Your task to perform on an android device: turn off data saver in the chrome app Image 0: 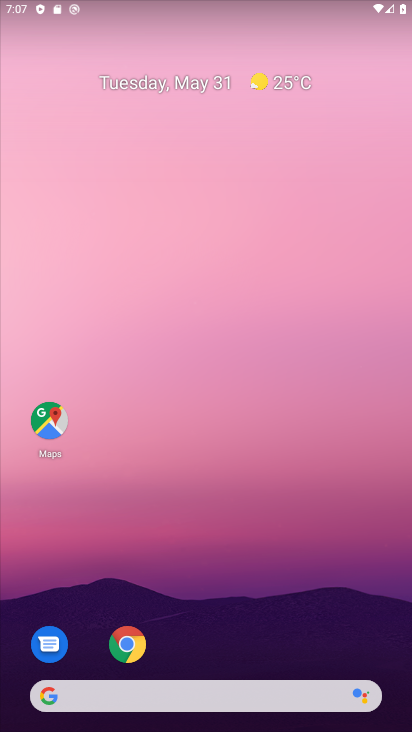
Step 0: drag from (254, 713) to (316, 157)
Your task to perform on an android device: turn off data saver in the chrome app Image 1: 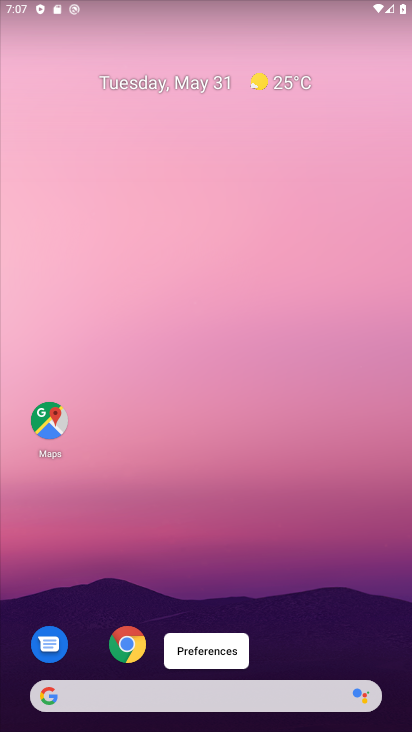
Step 1: click (136, 641)
Your task to perform on an android device: turn off data saver in the chrome app Image 2: 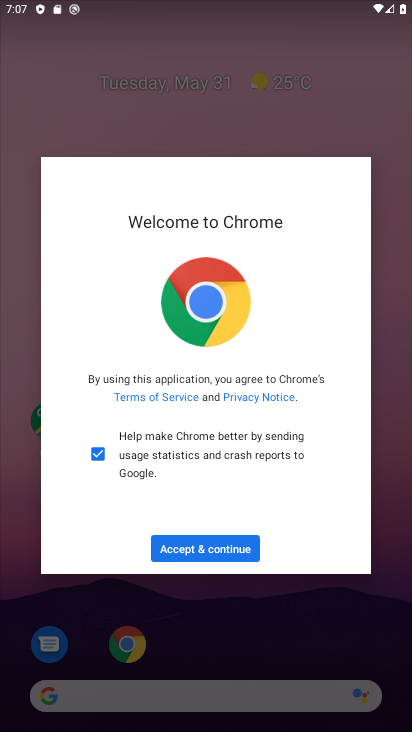
Step 2: click (204, 550)
Your task to perform on an android device: turn off data saver in the chrome app Image 3: 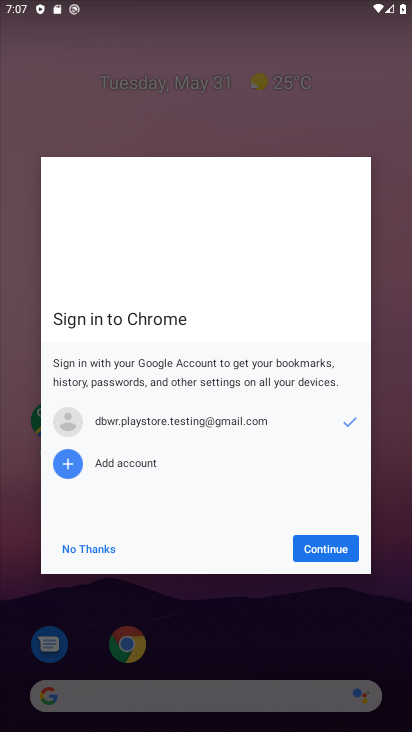
Step 3: click (315, 547)
Your task to perform on an android device: turn off data saver in the chrome app Image 4: 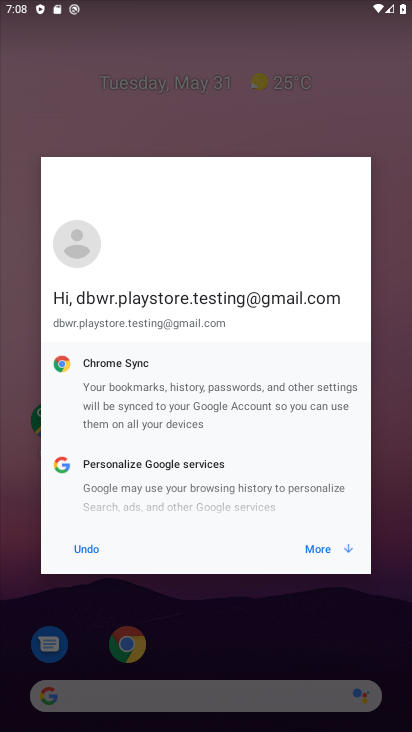
Step 4: click (338, 549)
Your task to perform on an android device: turn off data saver in the chrome app Image 5: 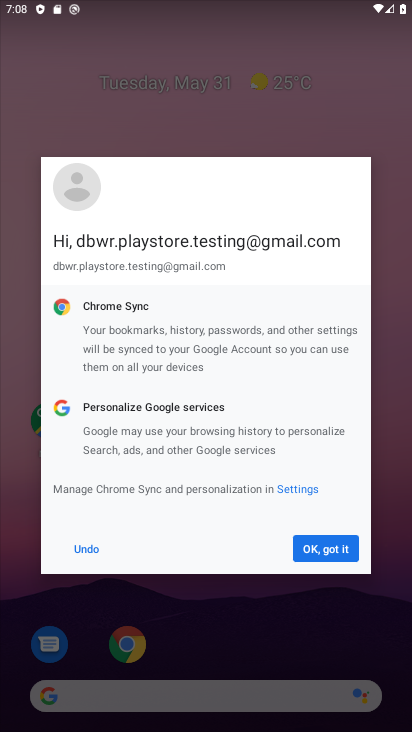
Step 5: click (332, 548)
Your task to perform on an android device: turn off data saver in the chrome app Image 6: 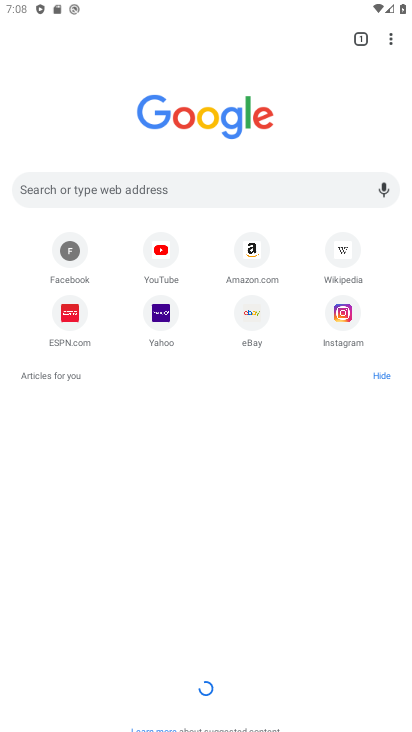
Step 6: click (398, 37)
Your task to perform on an android device: turn off data saver in the chrome app Image 7: 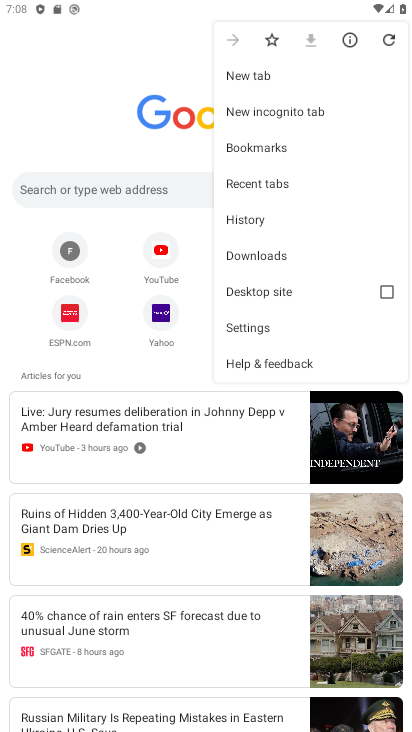
Step 7: click (253, 324)
Your task to perform on an android device: turn off data saver in the chrome app Image 8: 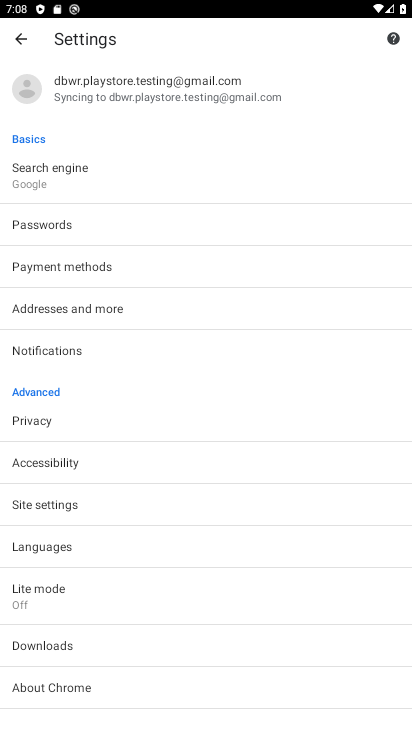
Step 8: click (34, 598)
Your task to perform on an android device: turn off data saver in the chrome app Image 9: 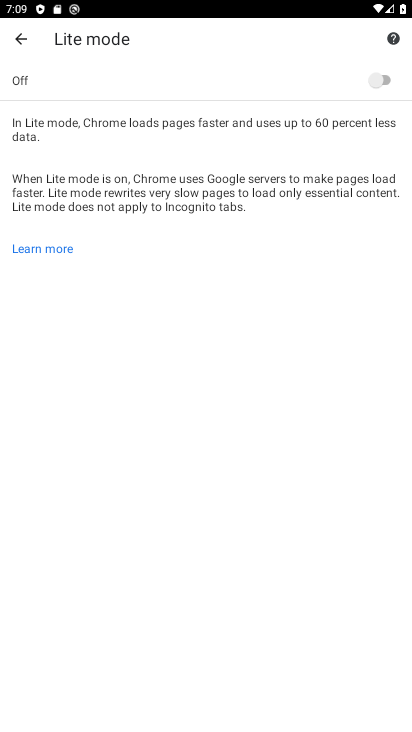
Step 9: click (390, 69)
Your task to perform on an android device: turn off data saver in the chrome app Image 10: 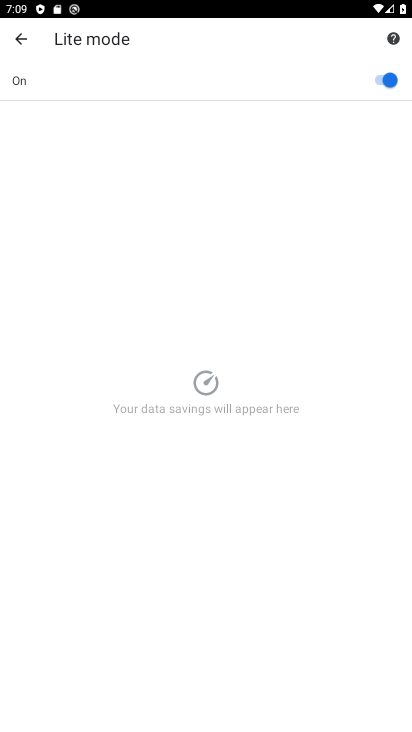
Step 10: task complete